Your task to perform on an android device: open a new tab in the chrome app Image 0: 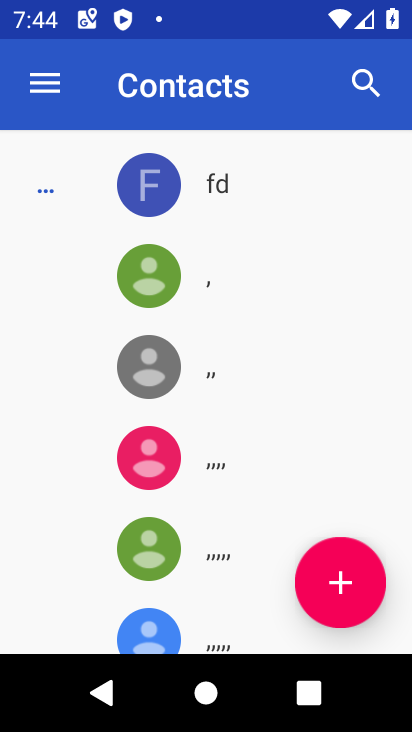
Step 0: press home button
Your task to perform on an android device: open a new tab in the chrome app Image 1: 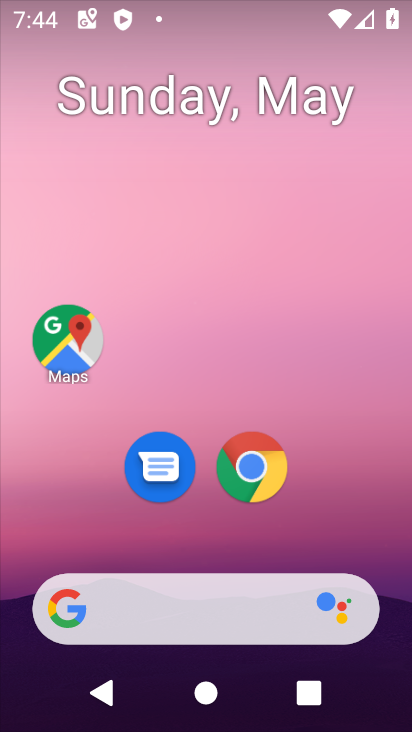
Step 1: click (269, 462)
Your task to perform on an android device: open a new tab in the chrome app Image 2: 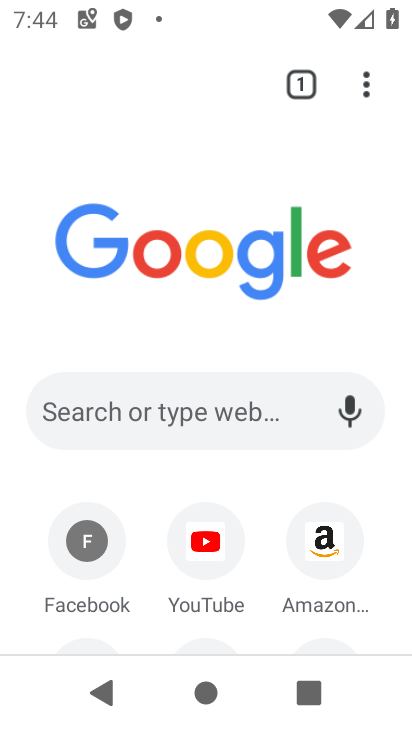
Step 2: click (367, 77)
Your task to perform on an android device: open a new tab in the chrome app Image 3: 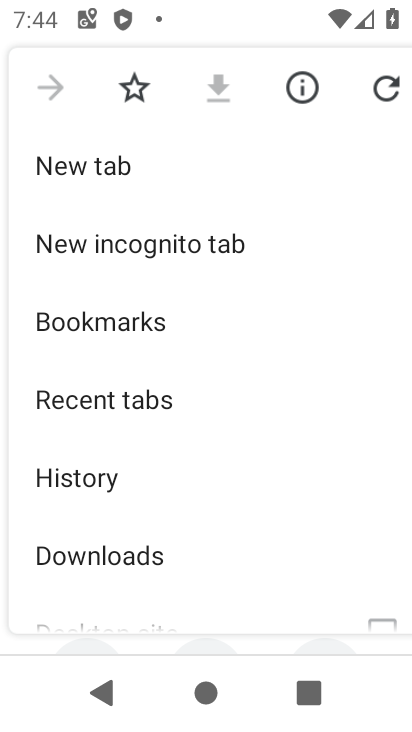
Step 3: click (369, 86)
Your task to perform on an android device: open a new tab in the chrome app Image 4: 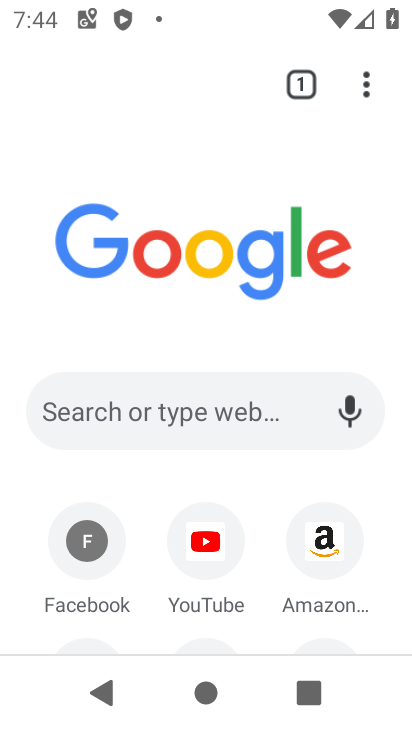
Step 4: click (306, 85)
Your task to perform on an android device: open a new tab in the chrome app Image 5: 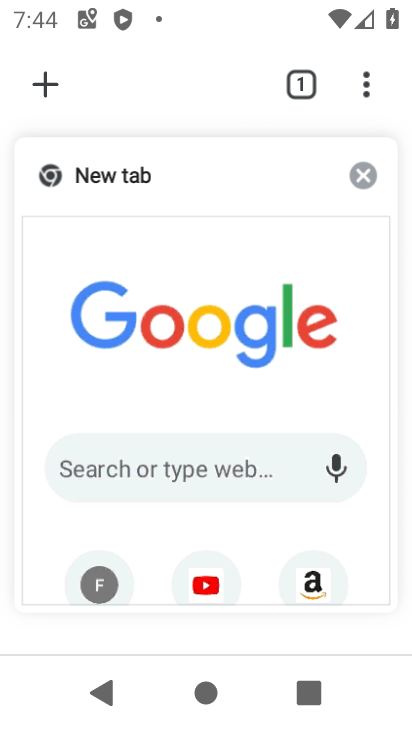
Step 5: click (50, 78)
Your task to perform on an android device: open a new tab in the chrome app Image 6: 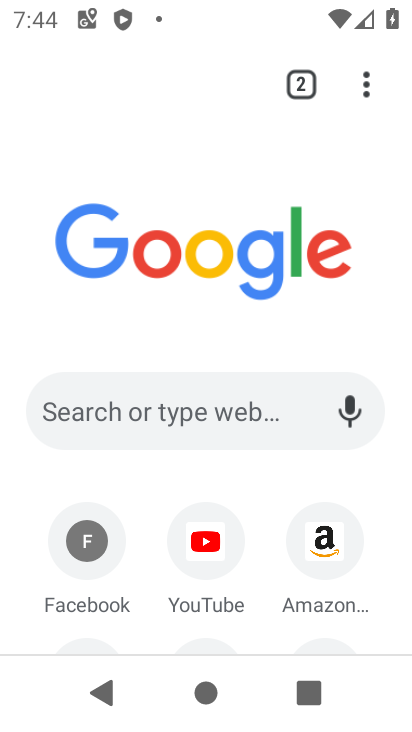
Step 6: task complete